Your task to perform on an android device: add a contact in the contacts app Image 0: 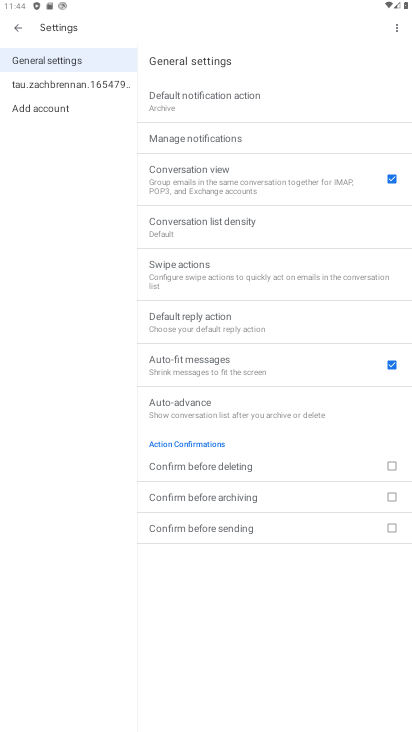
Step 0: press home button
Your task to perform on an android device: add a contact in the contacts app Image 1: 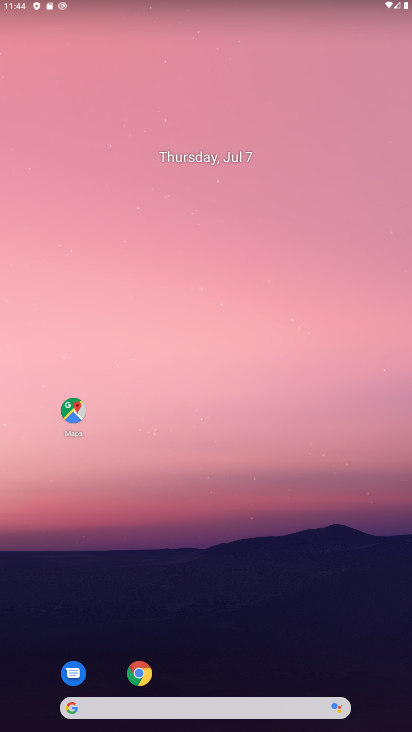
Step 1: drag from (296, 606) to (406, 13)
Your task to perform on an android device: add a contact in the contacts app Image 2: 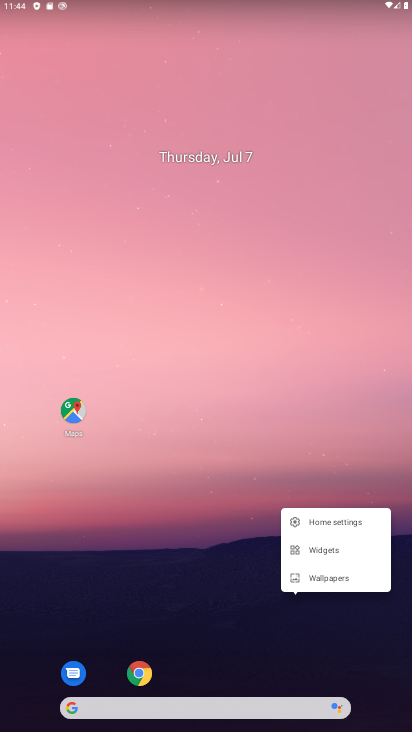
Step 2: drag from (211, 550) to (265, 96)
Your task to perform on an android device: add a contact in the contacts app Image 3: 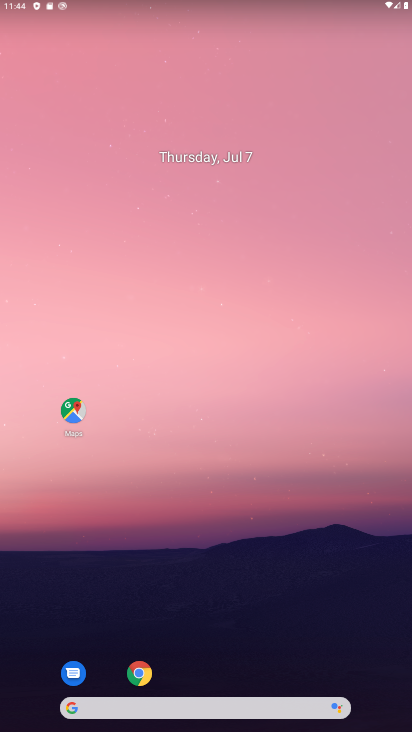
Step 3: drag from (299, 313) to (323, 166)
Your task to perform on an android device: add a contact in the contacts app Image 4: 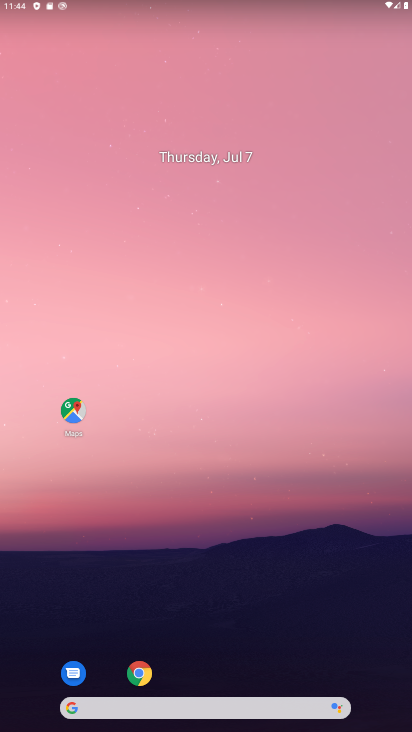
Step 4: drag from (202, 608) to (266, 277)
Your task to perform on an android device: add a contact in the contacts app Image 5: 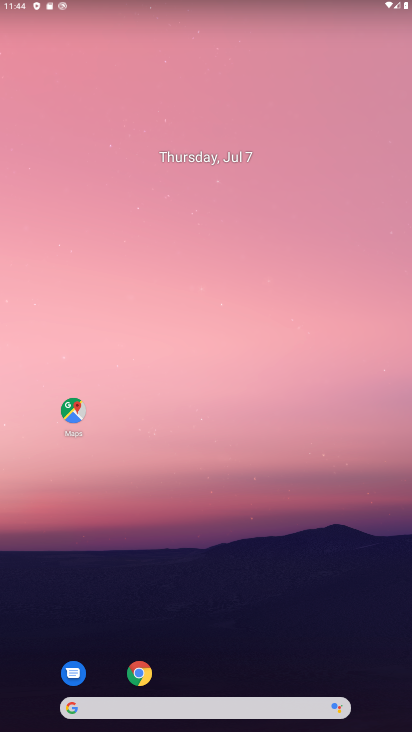
Step 5: drag from (216, 482) to (307, 155)
Your task to perform on an android device: add a contact in the contacts app Image 6: 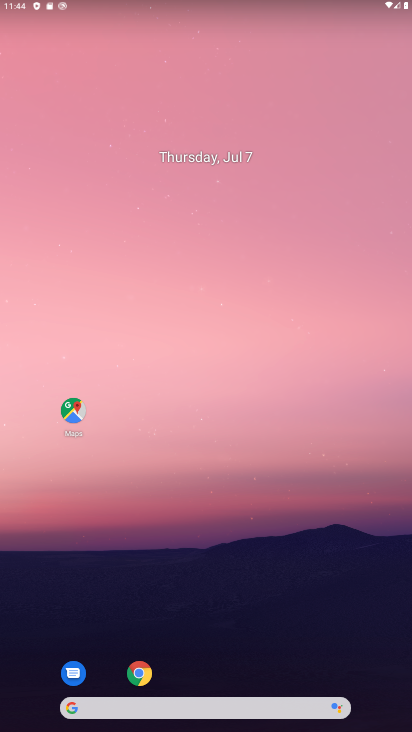
Step 6: click (269, 210)
Your task to perform on an android device: add a contact in the contacts app Image 7: 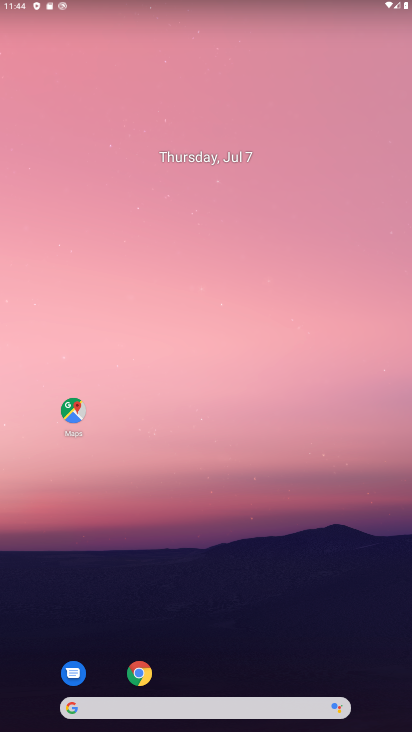
Step 7: drag from (252, 276) to (338, 23)
Your task to perform on an android device: add a contact in the contacts app Image 8: 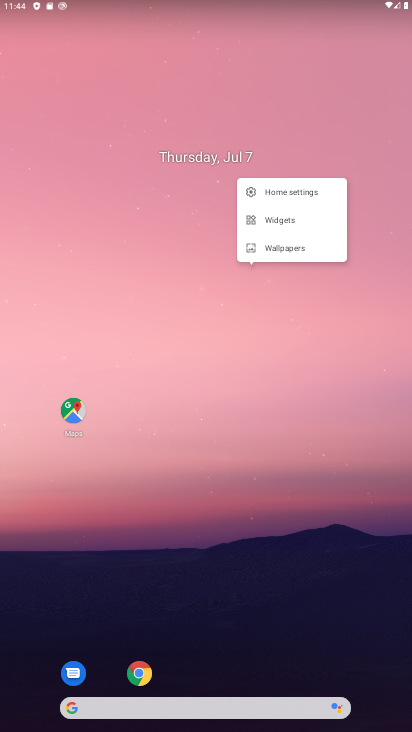
Step 8: click (204, 371)
Your task to perform on an android device: add a contact in the contacts app Image 9: 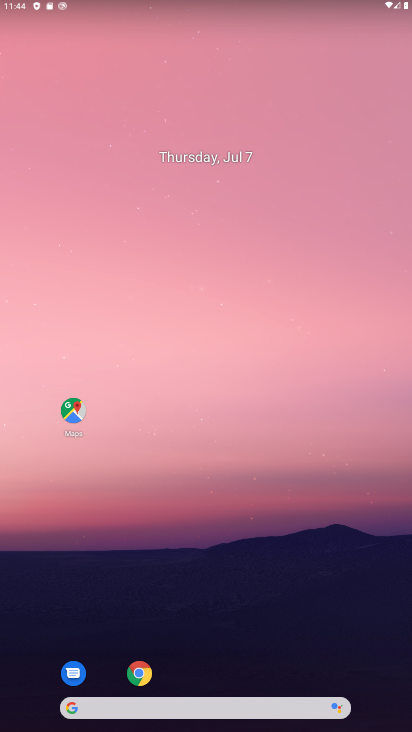
Step 9: drag from (204, 371) to (271, 90)
Your task to perform on an android device: add a contact in the contacts app Image 10: 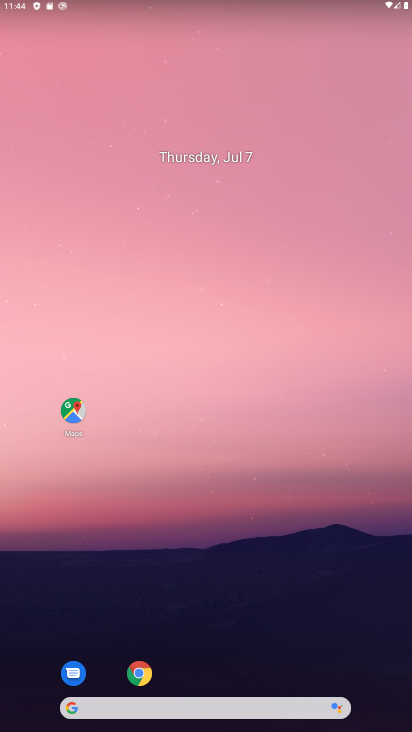
Step 10: drag from (217, 493) to (258, 37)
Your task to perform on an android device: add a contact in the contacts app Image 11: 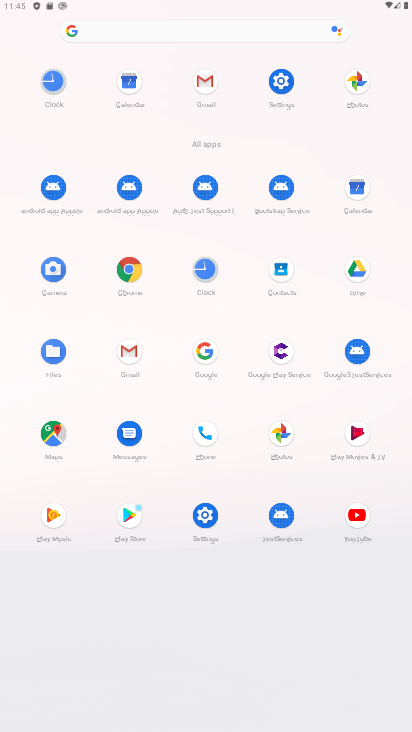
Step 11: click (273, 270)
Your task to perform on an android device: add a contact in the contacts app Image 12: 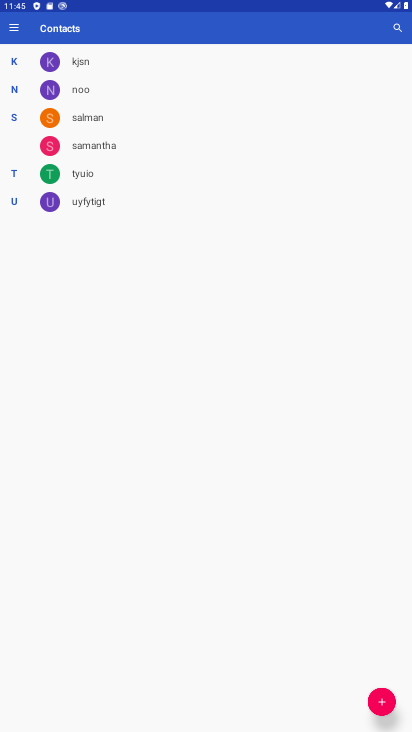
Step 12: click (377, 708)
Your task to perform on an android device: add a contact in the contacts app Image 13: 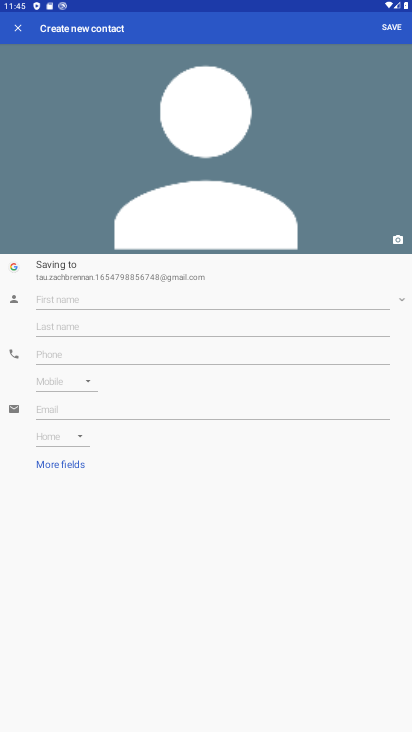
Step 13: click (132, 297)
Your task to perform on an android device: add a contact in the contacts app Image 14: 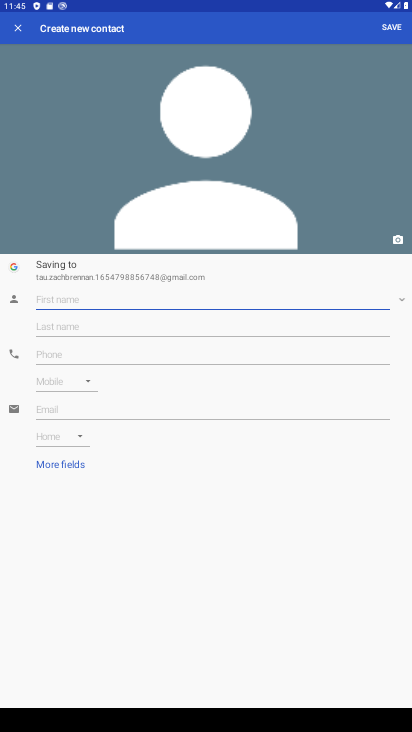
Step 14: type "avb"
Your task to perform on an android device: add a contact in the contacts app Image 15: 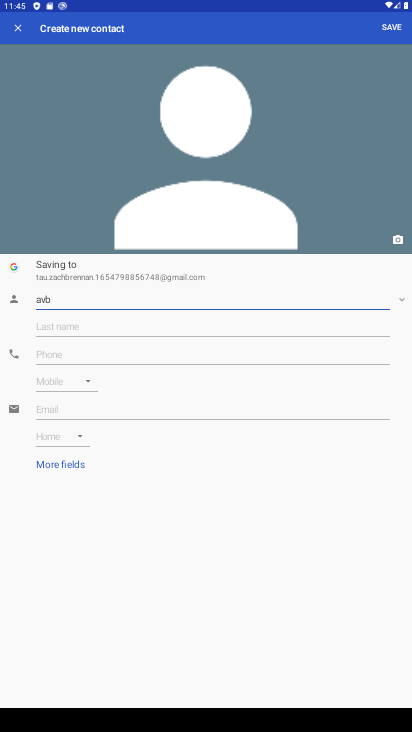
Step 15: press enter
Your task to perform on an android device: add a contact in the contacts app Image 16: 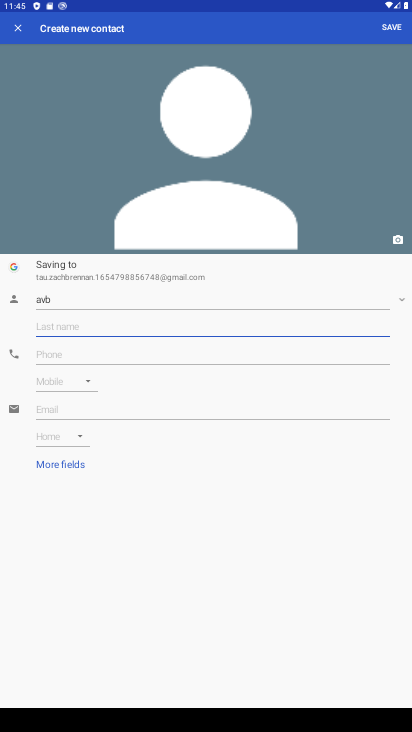
Step 16: click (289, 350)
Your task to perform on an android device: add a contact in the contacts app Image 17: 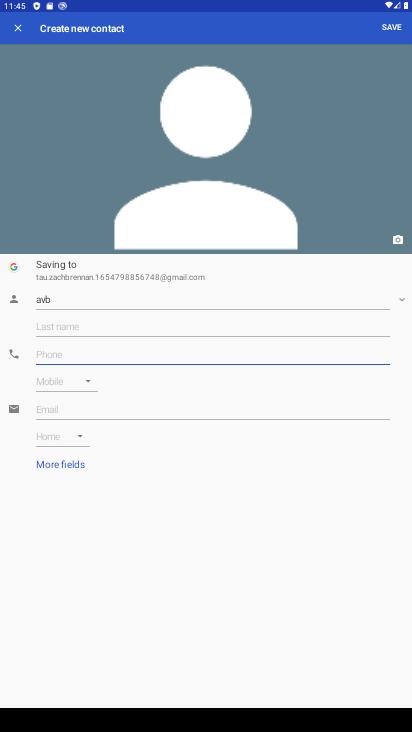
Step 17: type "6676"
Your task to perform on an android device: add a contact in the contacts app Image 18: 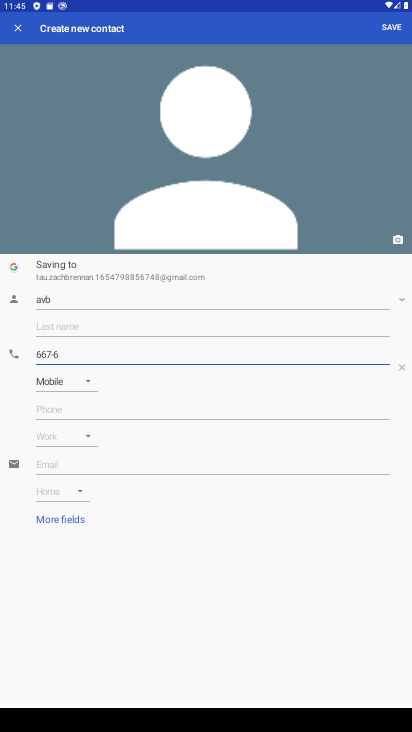
Step 18: press enter
Your task to perform on an android device: add a contact in the contacts app Image 19: 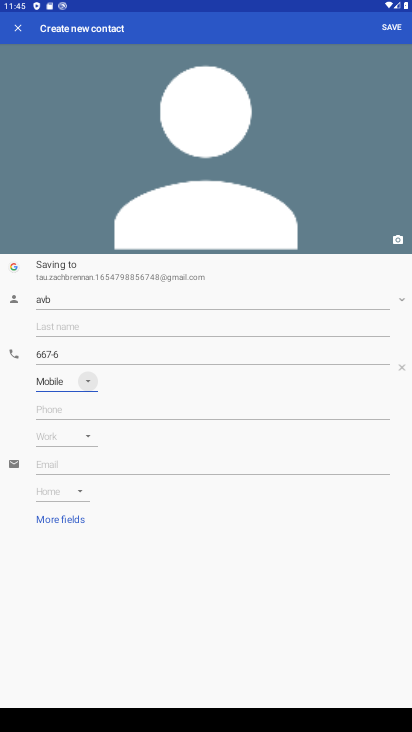
Step 19: click (395, 25)
Your task to perform on an android device: add a contact in the contacts app Image 20: 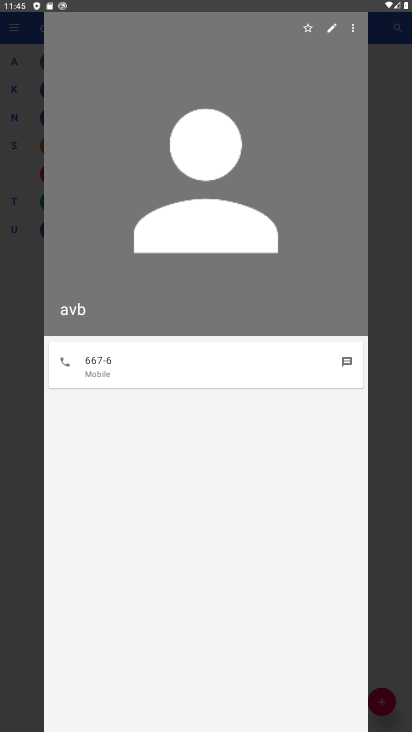
Step 20: task complete